Your task to perform on an android device: Open Google Maps Image 0: 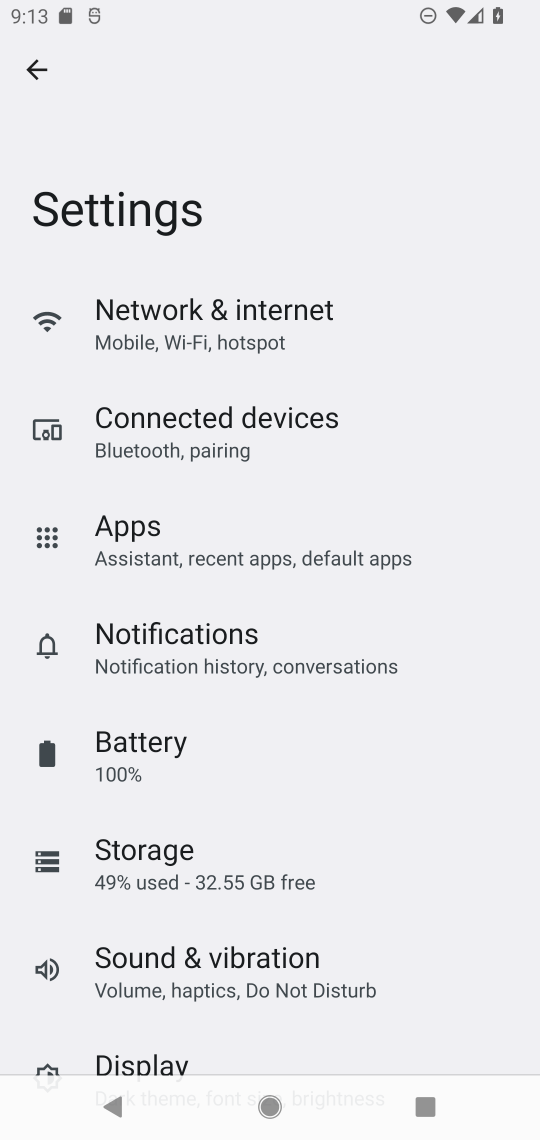
Step 0: press home button
Your task to perform on an android device: Open Google Maps Image 1: 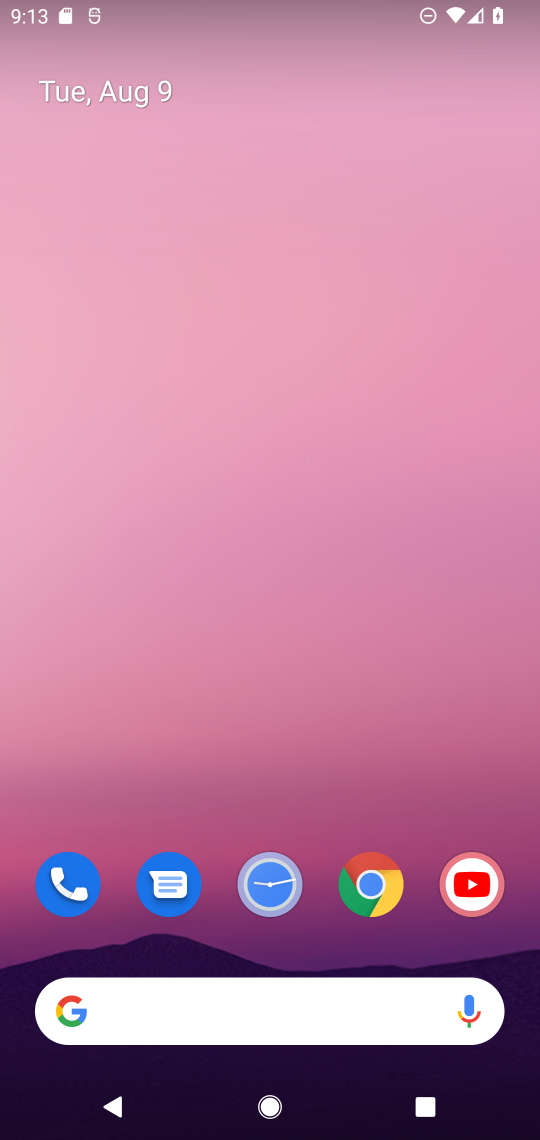
Step 1: drag from (362, 984) to (315, 139)
Your task to perform on an android device: Open Google Maps Image 2: 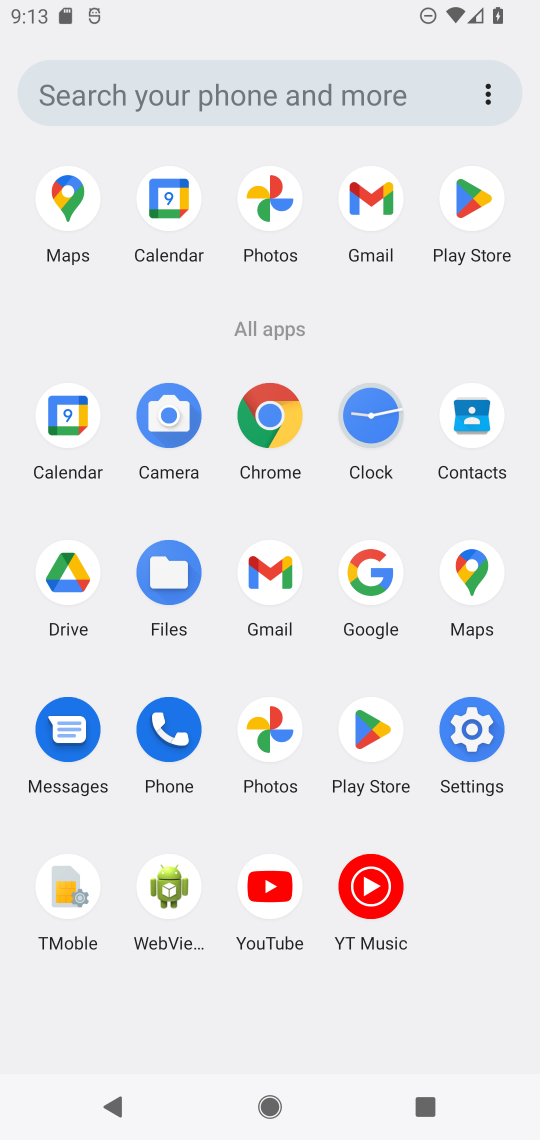
Step 2: click (461, 553)
Your task to perform on an android device: Open Google Maps Image 3: 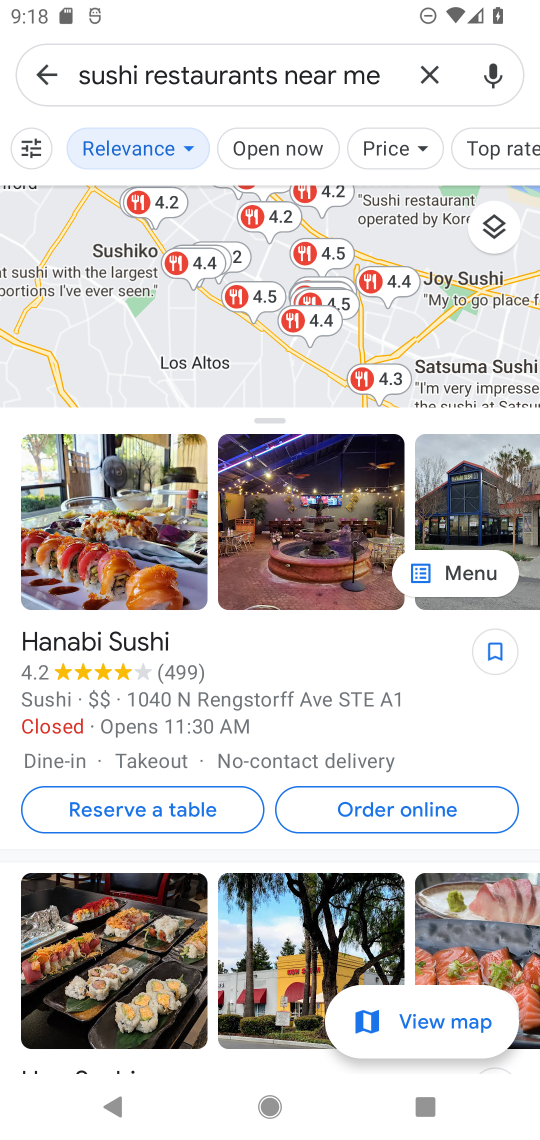
Step 3: task complete